Your task to perform on an android device: Open Chrome and go to settings Image 0: 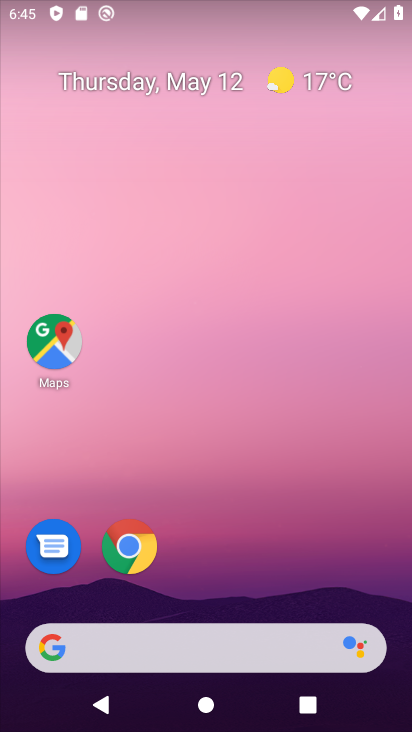
Step 0: click (130, 557)
Your task to perform on an android device: Open Chrome and go to settings Image 1: 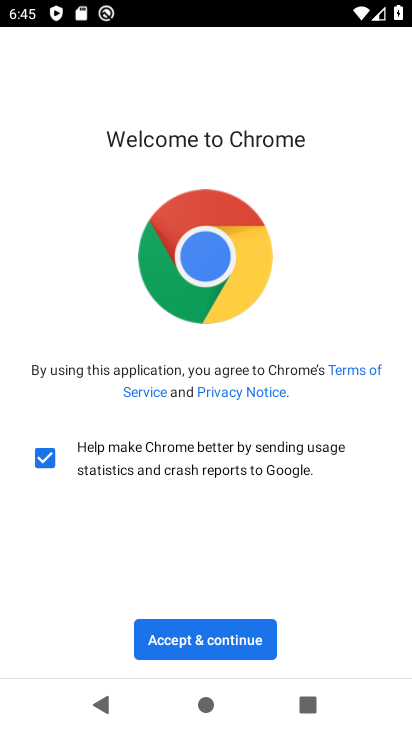
Step 1: click (217, 640)
Your task to perform on an android device: Open Chrome and go to settings Image 2: 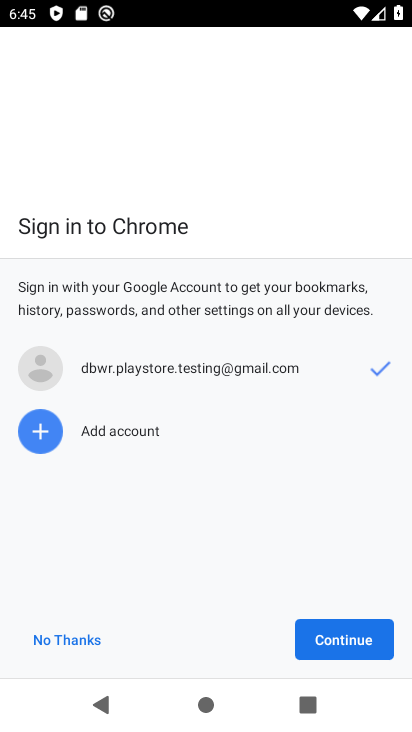
Step 2: click (329, 634)
Your task to perform on an android device: Open Chrome and go to settings Image 3: 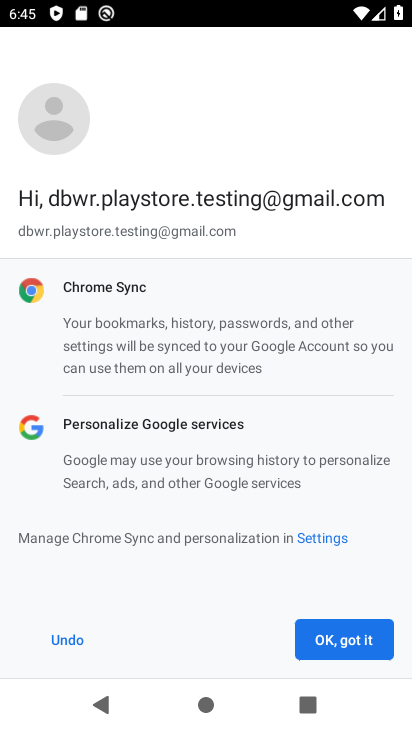
Step 3: click (332, 635)
Your task to perform on an android device: Open Chrome and go to settings Image 4: 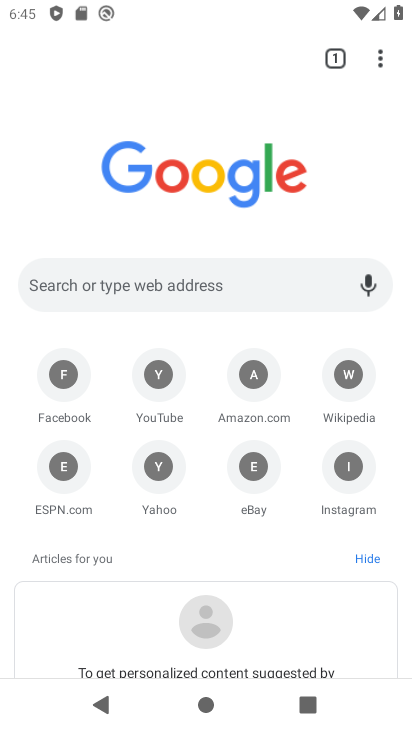
Step 4: click (380, 55)
Your task to perform on an android device: Open Chrome and go to settings Image 5: 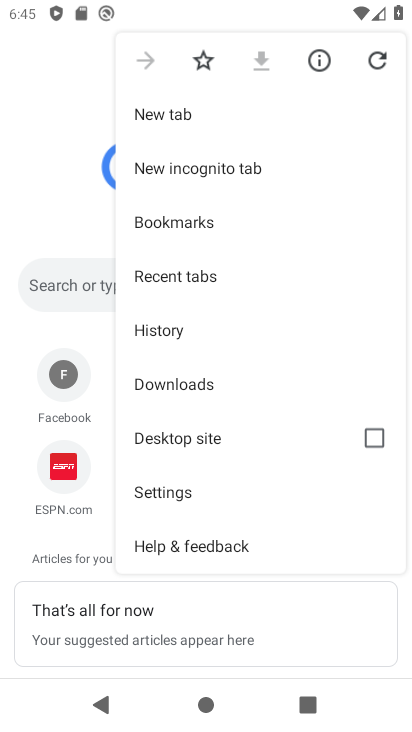
Step 5: click (176, 490)
Your task to perform on an android device: Open Chrome and go to settings Image 6: 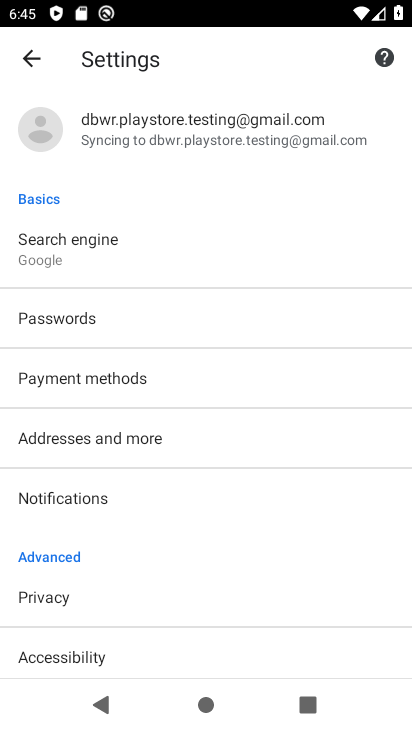
Step 6: task complete